Your task to perform on an android device: change the clock display to digital Image 0: 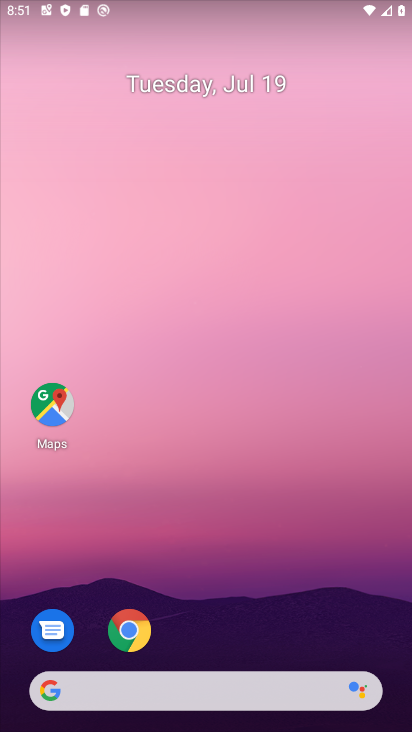
Step 0: drag from (216, 640) to (239, 113)
Your task to perform on an android device: change the clock display to digital Image 1: 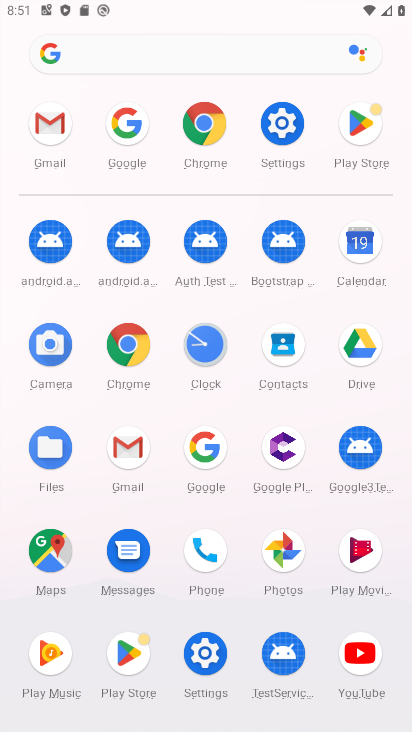
Step 1: click (204, 339)
Your task to perform on an android device: change the clock display to digital Image 2: 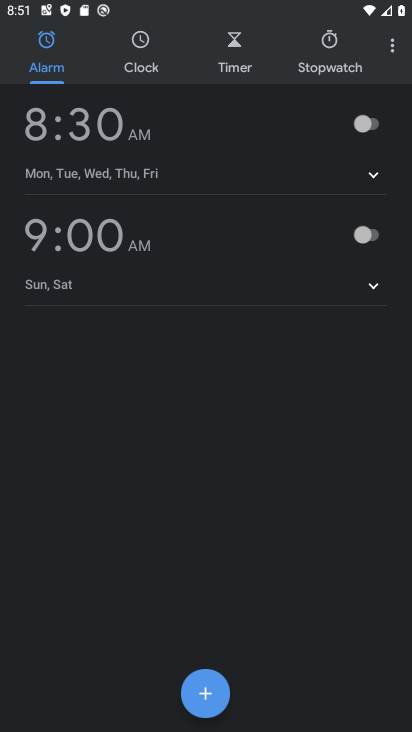
Step 2: click (385, 47)
Your task to perform on an android device: change the clock display to digital Image 3: 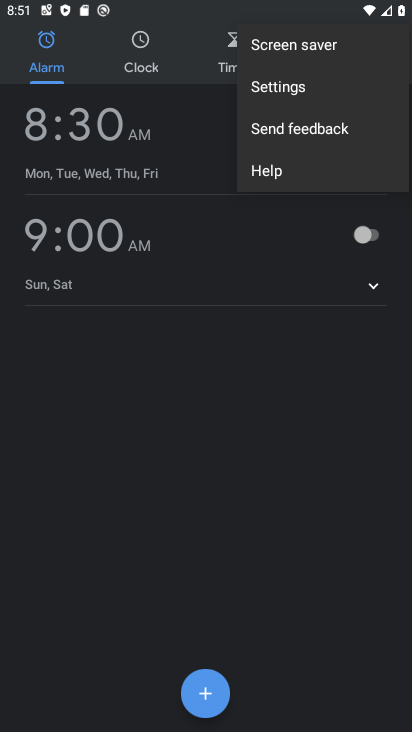
Step 3: click (300, 80)
Your task to perform on an android device: change the clock display to digital Image 4: 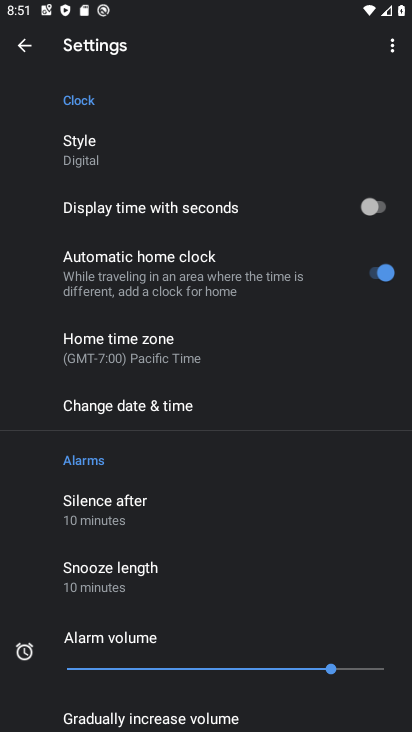
Step 4: task complete